Your task to perform on an android device: open wifi settings Image 0: 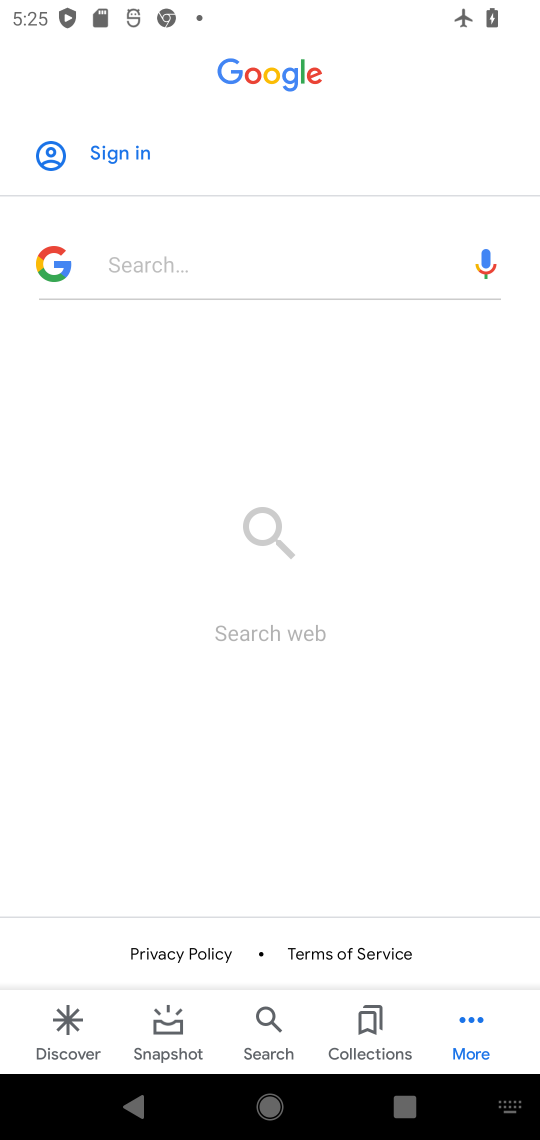
Step 0: press home button
Your task to perform on an android device: open wifi settings Image 1: 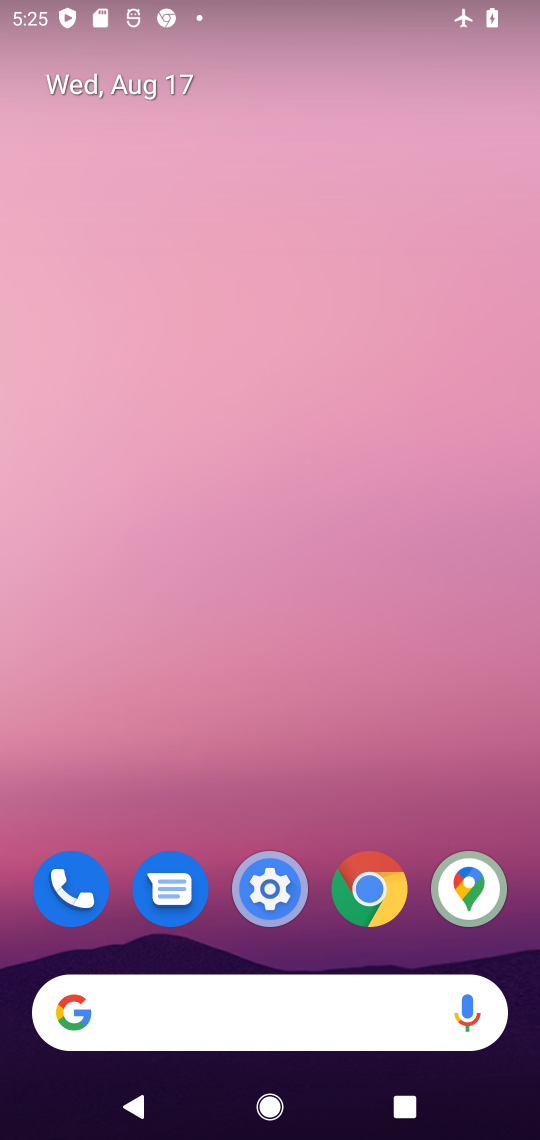
Step 1: click (274, 895)
Your task to perform on an android device: open wifi settings Image 2: 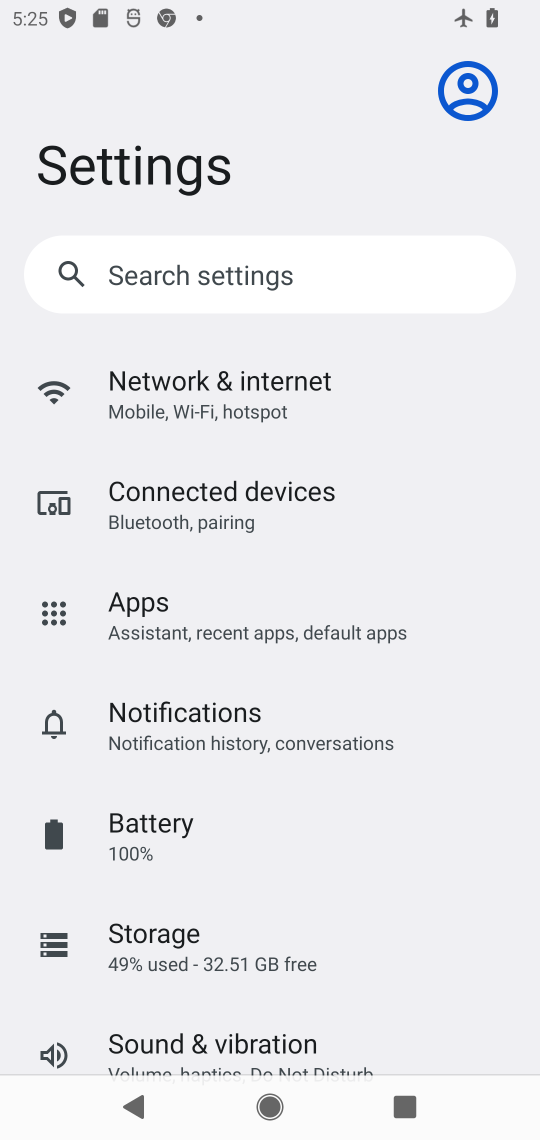
Step 2: click (212, 387)
Your task to perform on an android device: open wifi settings Image 3: 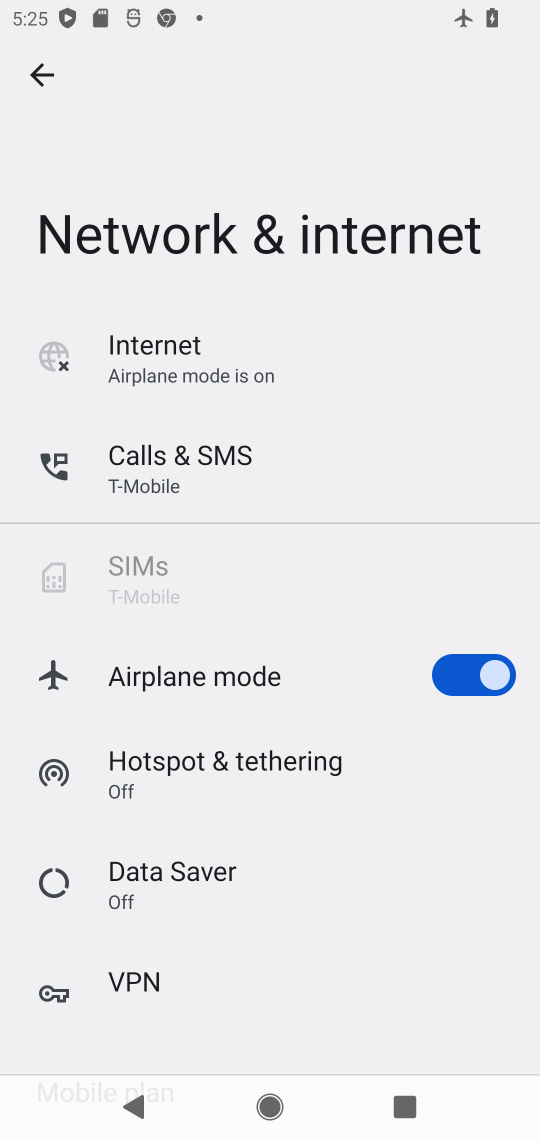
Step 3: click (167, 352)
Your task to perform on an android device: open wifi settings Image 4: 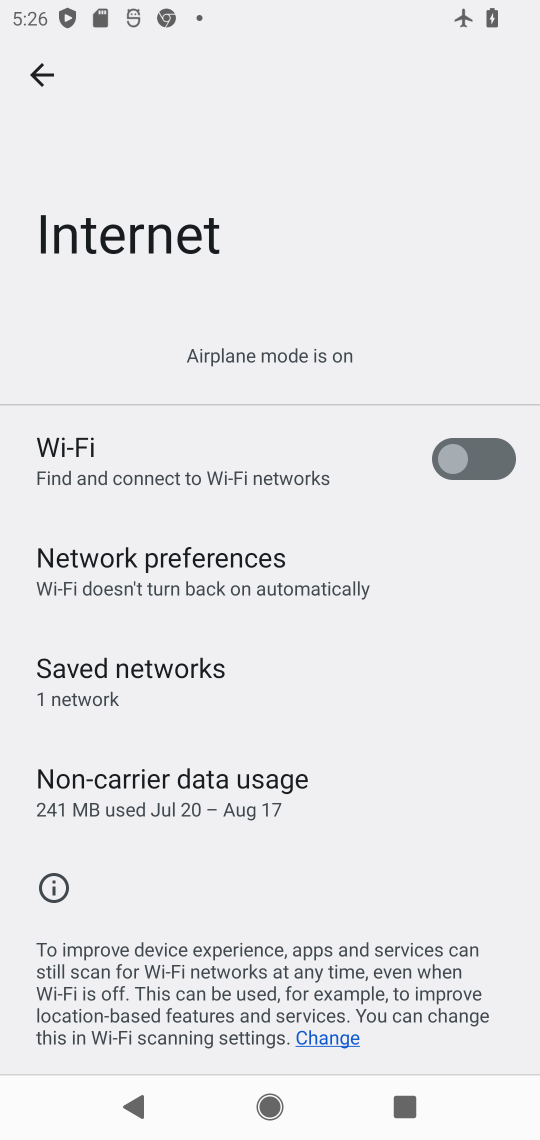
Step 4: click (101, 465)
Your task to perform on an android device: open wifi settings Image 5: 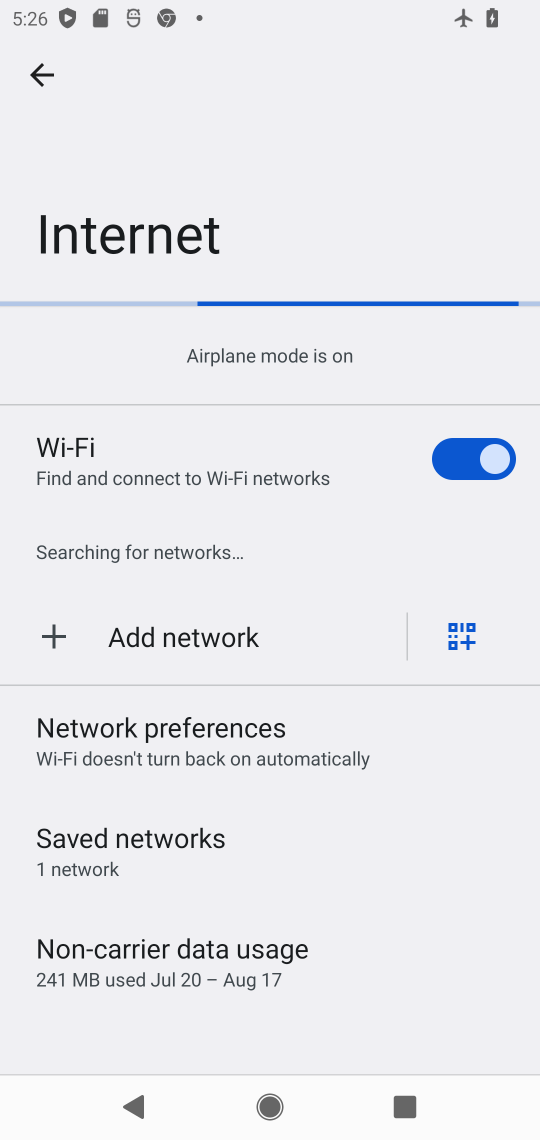
Step 5: task complete